Your task to perform on an android device: Show me productivity apps on the Play Store Image 0: 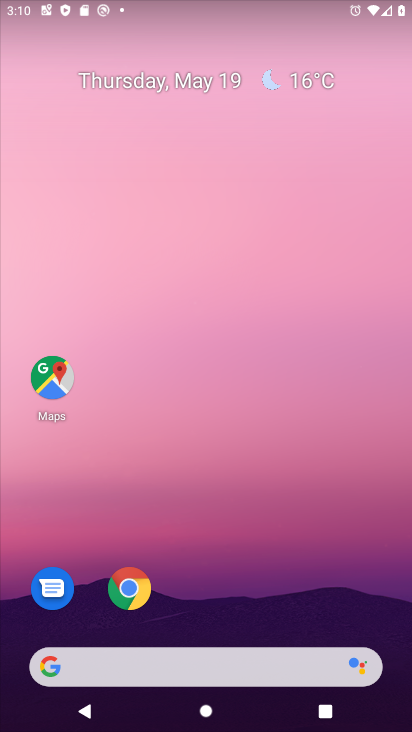
Step 0: drag from (331, 605) to (229, 87)
Your task to perform on an android device: Show me productivity apps on the Play Store Image 1: 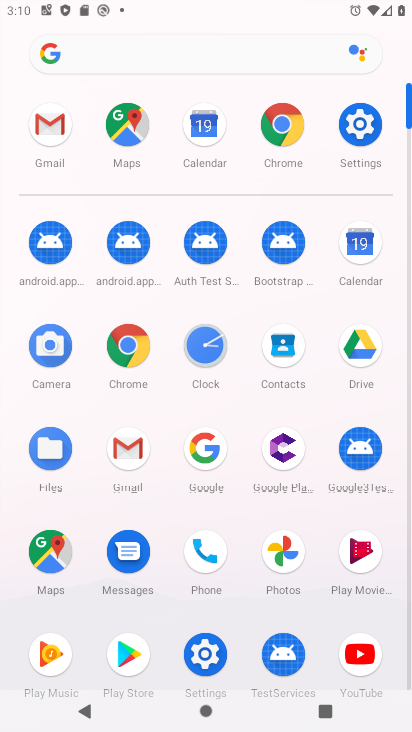
Step 1: click (133, 656)
Your task to perform on an android device: Show me productivity apps on the Play Store Image 2: 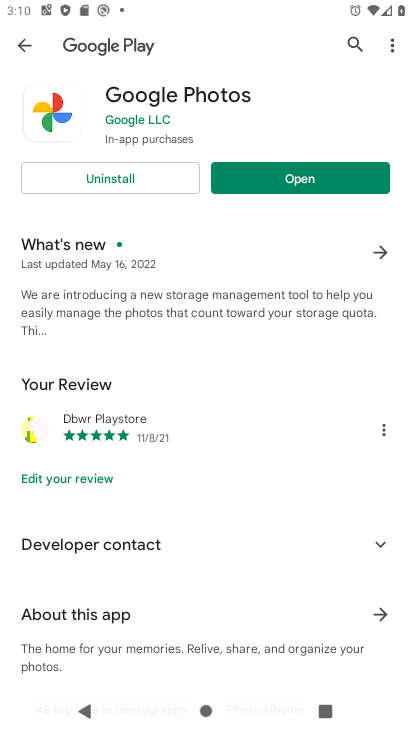
Step 2: click (17, 37)
Your task to perform on an android device: Show me productivity apps on the Play Store Image 3: 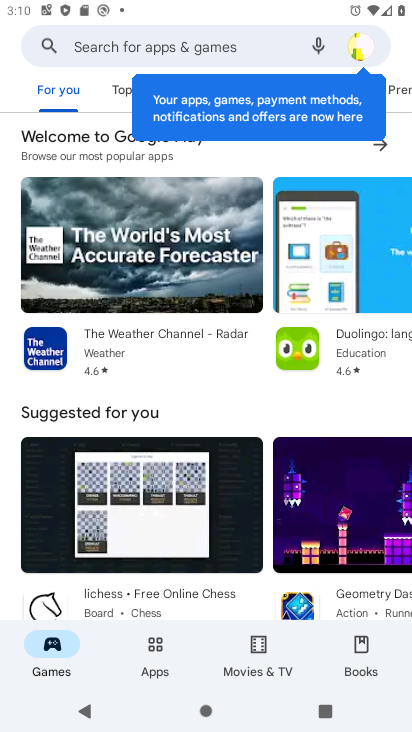
Step 3: click (140, 642)
Your task to perform on an android device: Show me productivity apps on the Play Store Image 4: 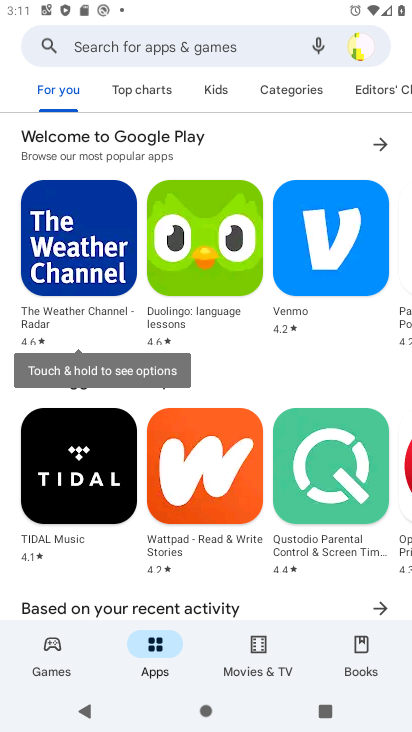
Step 4: task complete